Your task to perform on an android device: Open Maps and search for coffee Image 0: 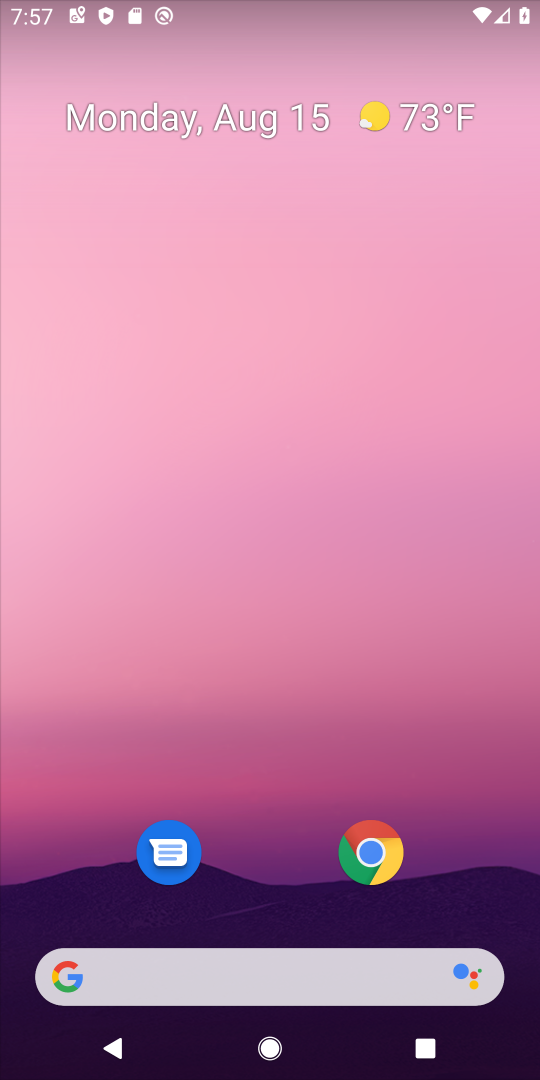
Step 0: drag from (251, 963) to (311, 315)
Your task to perform on an android device: Open Maps and search for coffee Image 1: 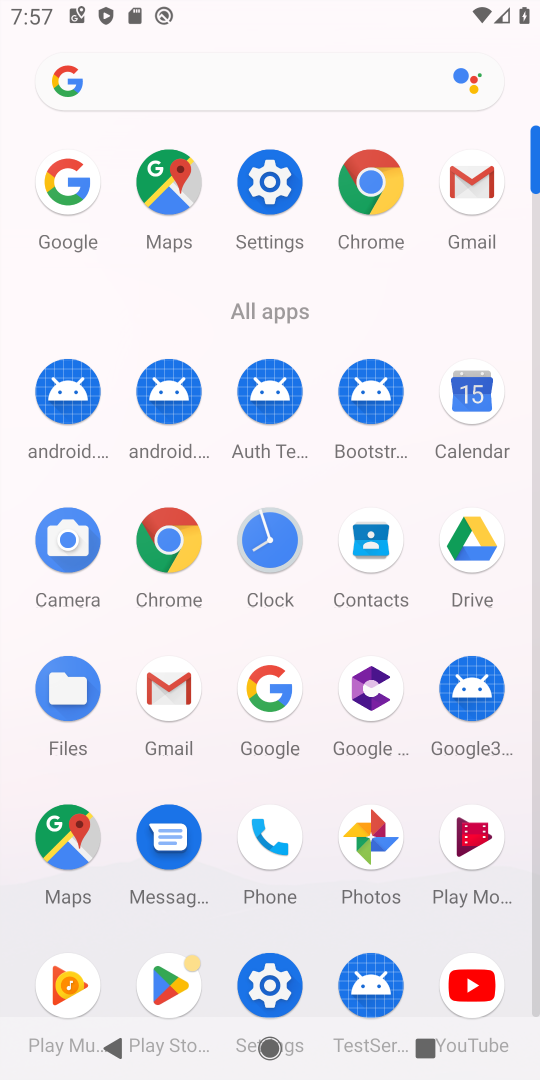
Step 1: click (165, 185)
Your task to perform on an android device: Open Maps and search for coffee Image 2: 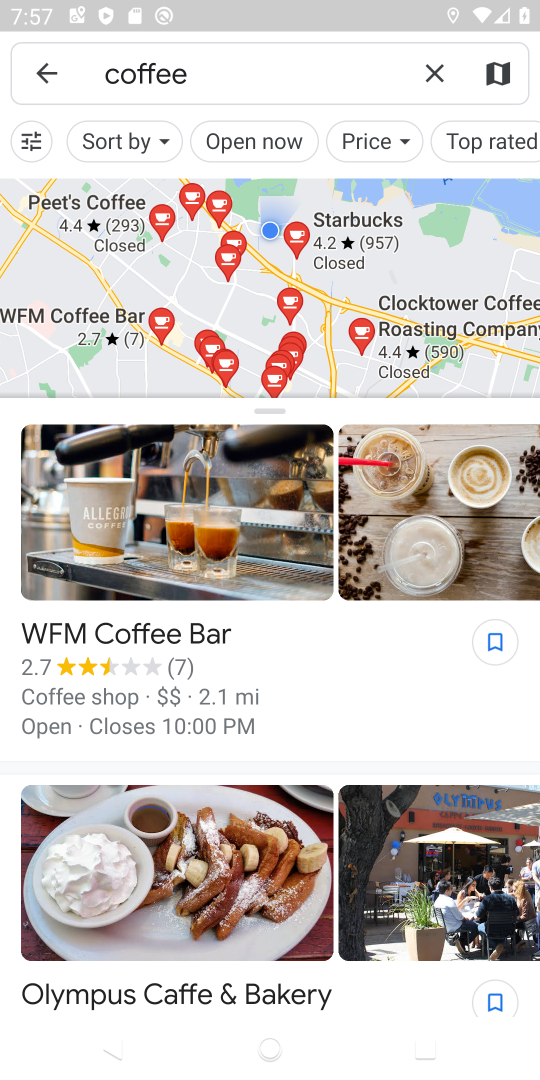
Step 2: click (436, 74)
Your task to perform on an android device: Open Maps and search for coffee Image 3: 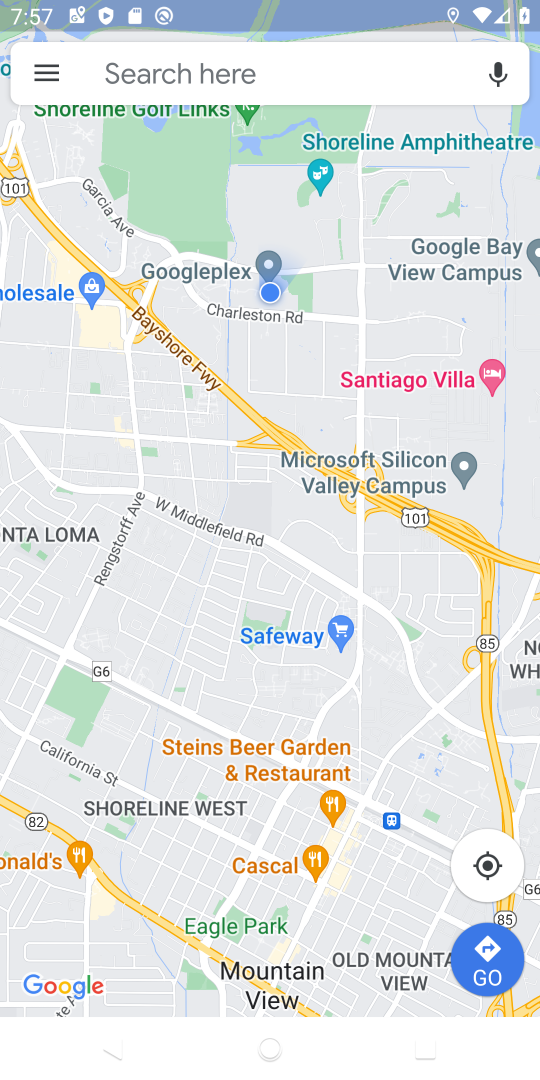
Step 3: click (262, 70)
Your task to perform on an android device: Open Maps and search for coffee Image 4: 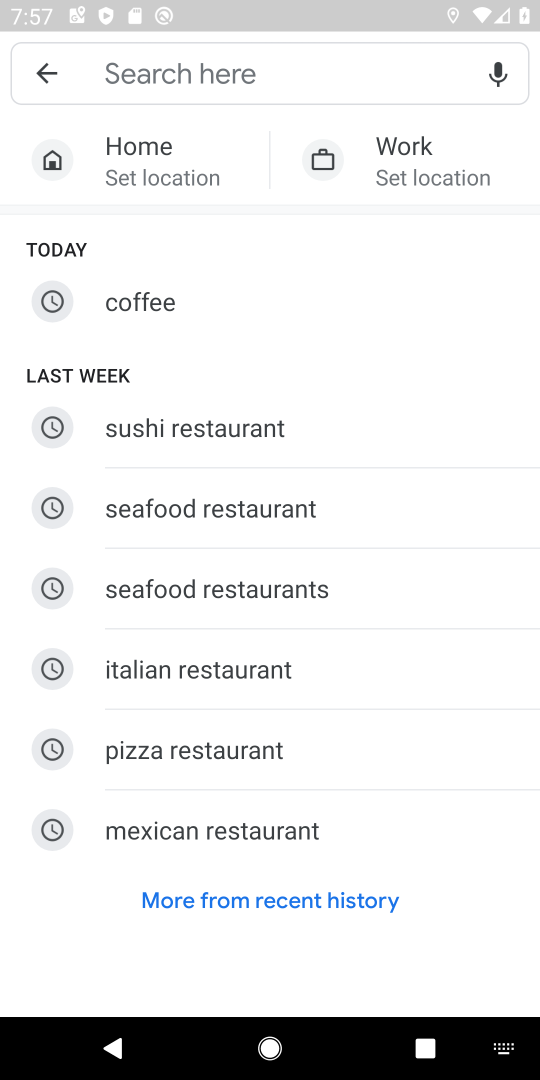
Step 4: type "coffee"
Your task to perform on an android device: Open Maps and search for coffee Image 5: 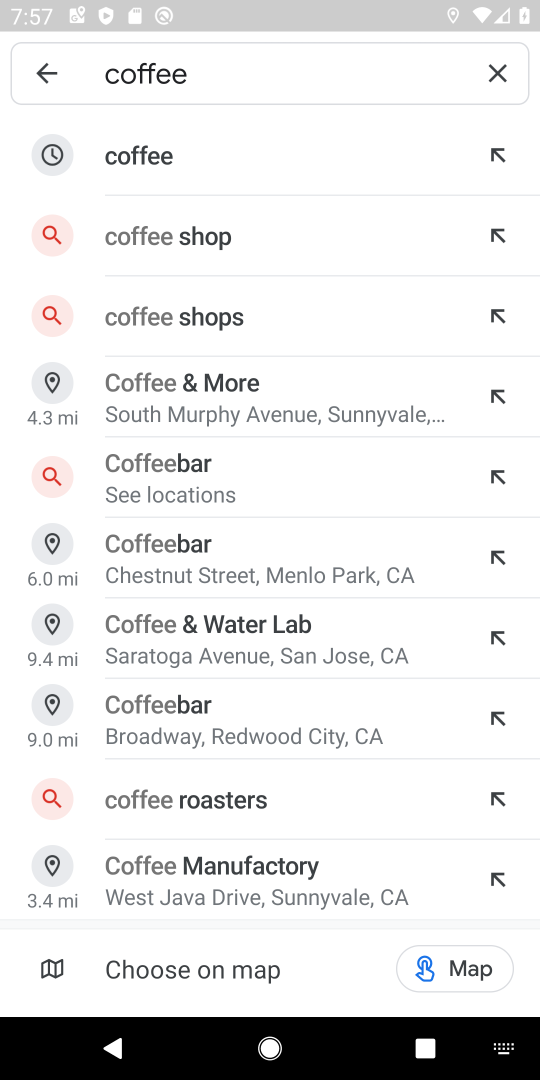
Step 5: click (135, 153)
Your task to perform on an android device: Open Maps and search for coffee Image 6: 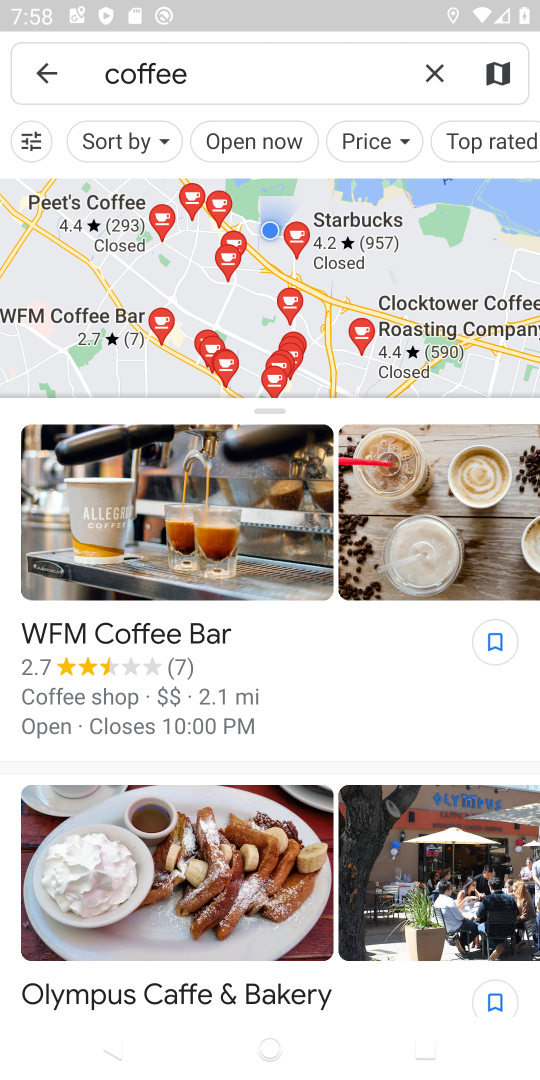
Step 6: task complete